Your task to perform on an android device: open device folders in google photos Image 0: 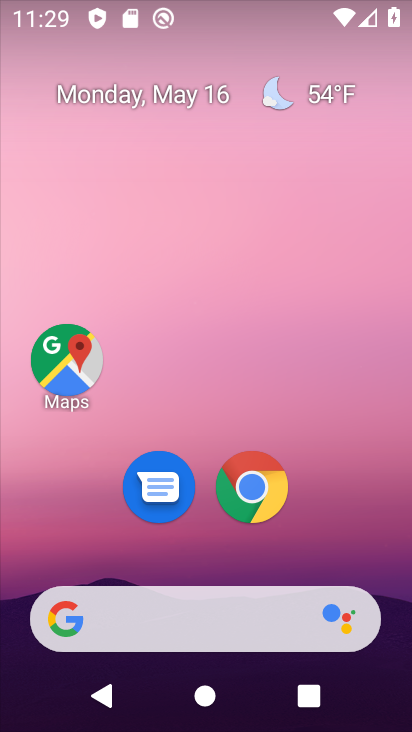
Step 0: drag from (193, 495) to (262, 2)
Your task to perform on an android device: open device folders in google photos Image 1: 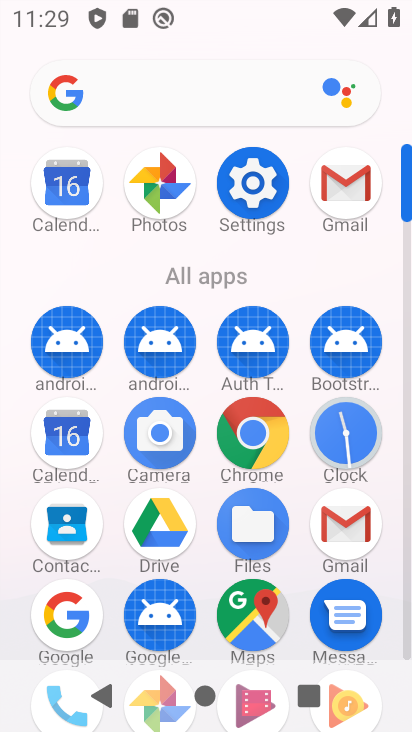
Step 1: drag from (194, 588) to (264, 168)
Your task to perform on an android device: open device folders in google photos Image 2: 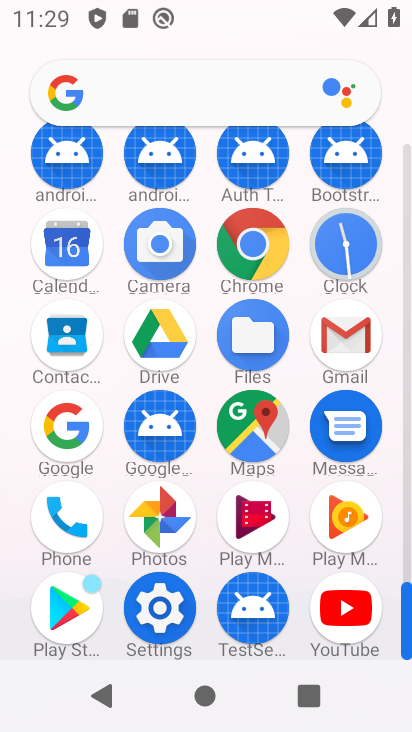
Step 2: click (162, 535)
Your task to perform on an android device: open device folders in google photos Image 3: 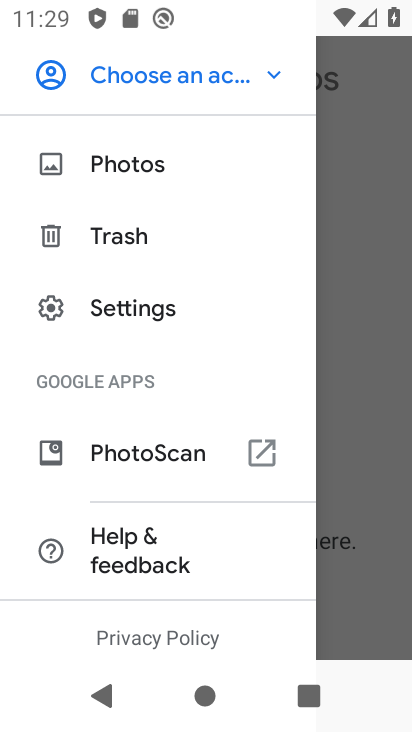
Step 3: task complete